Your task to perform on an android device: Search for sushi restaurants on Maps Image 0: 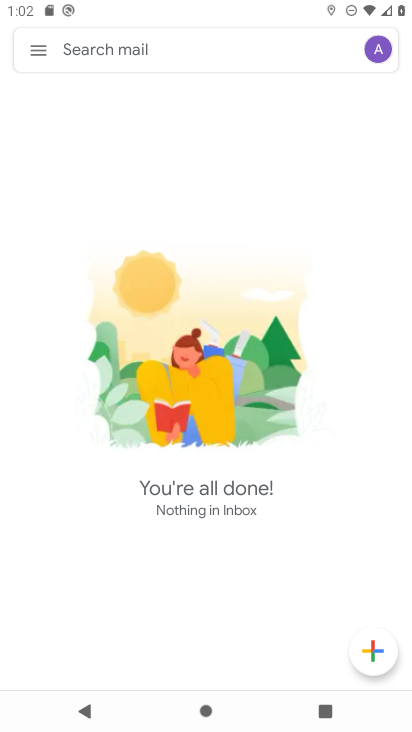
Step 0: press home button
Your task to perform on an android device: Search for sushi restaurants on Maps Image 1: 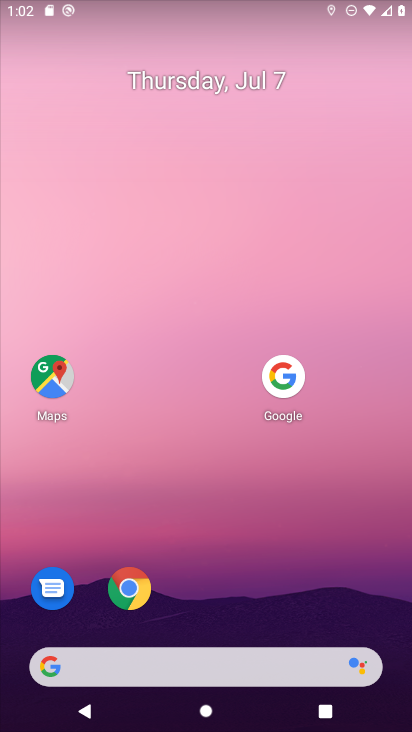
Step 1: click (52, 378)
Your task to perform on an android device: Search for sushi restaurants on Maps Image 2: 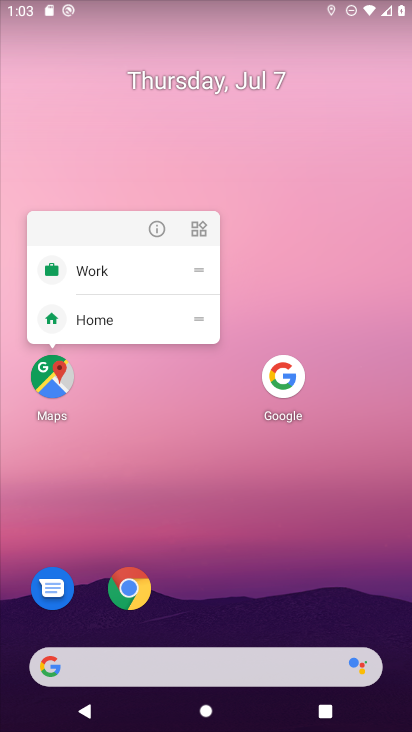
Step 2: click (52, 378)
Your task to perform on an android device: Search for sushi restaurants on Maps Image 3: 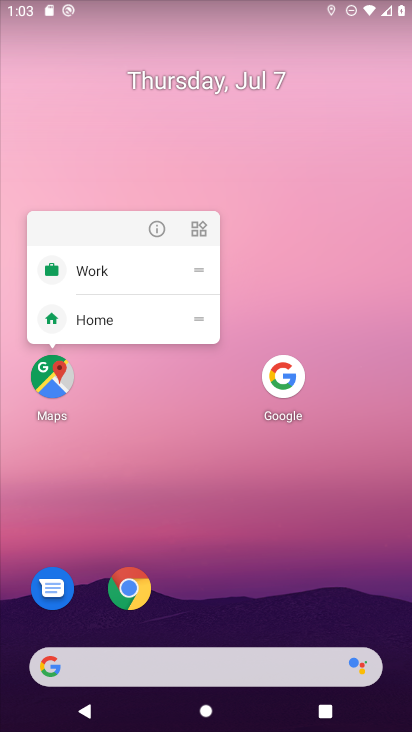
Step 3: click (54, 383)
Your task to perform on an android device: Search for sushi restaurants on Maps Image 4: 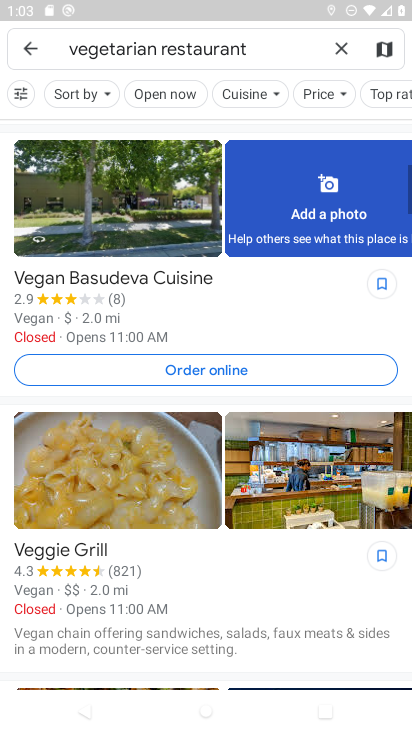
Step 4: click (339, 48)
Your task to perform on an android device: Search for sushi restaurants on Maps Image 5: 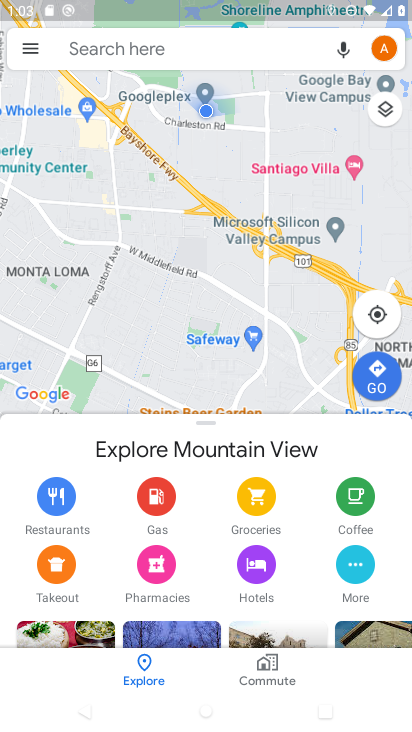
Step 5: click (206, 51)
Your task to perform on an android device: Search for sushi restaurants on Maps Image 6: 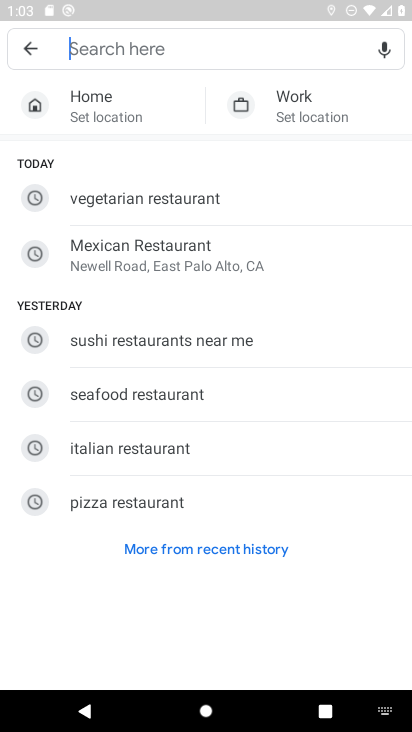
Step 6: type "sushi restaurants"
Your task to perform on an android device: Search for sushi restaurants on Maps Image 7: 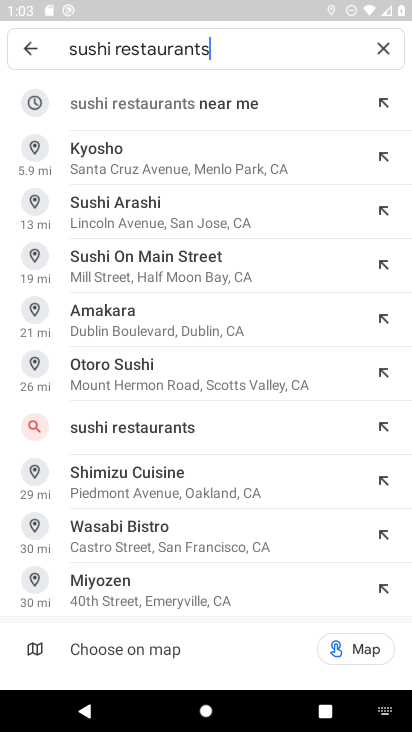
Step 7: click (118, 105)
Your task to perform on an android device: Search for sushi restaurants on Maps Image 8: 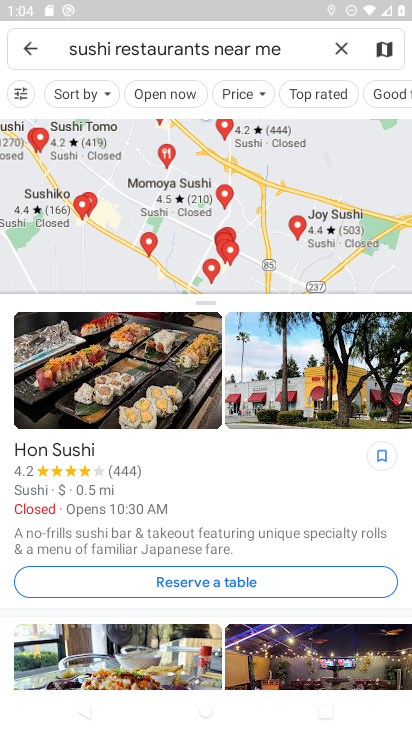
Step 8: task complete